Your task to perform on an android device: Go to display settings Image 0: 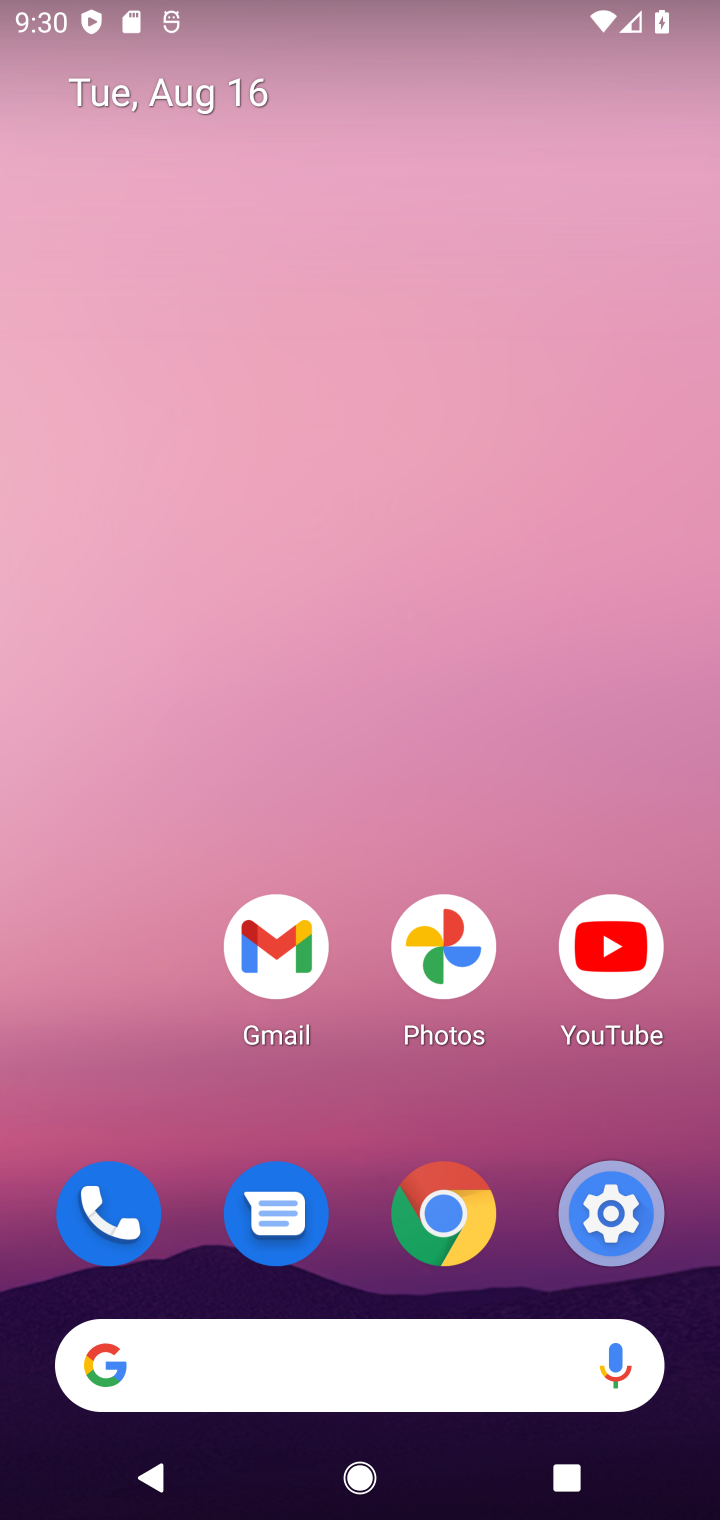
Step 0: drag from (403, 1270) to (425, 366)
Your task to perform on an android device: Go to display settings Image 1: 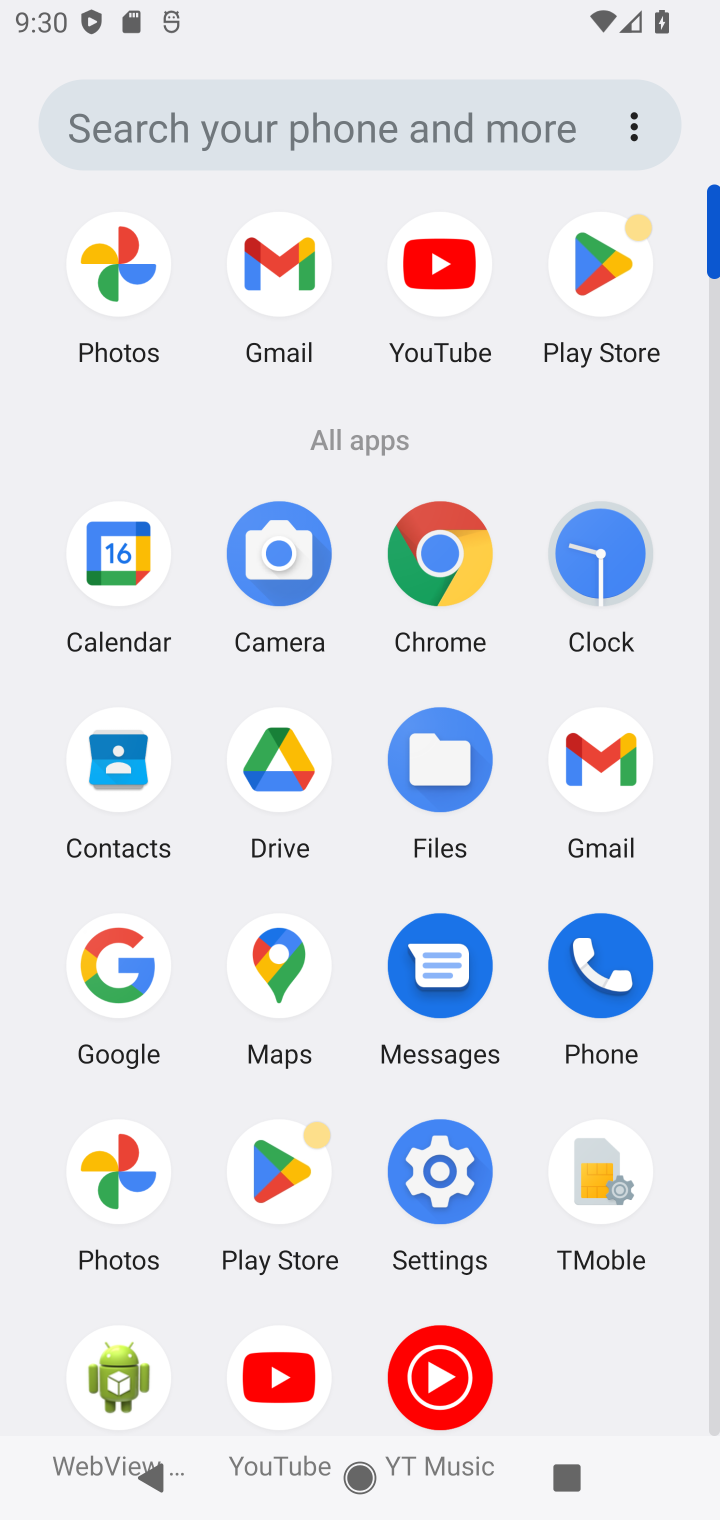
Step 1: click (453, 1162)
Your task to perform on an android device: Go to display settings Image 2: 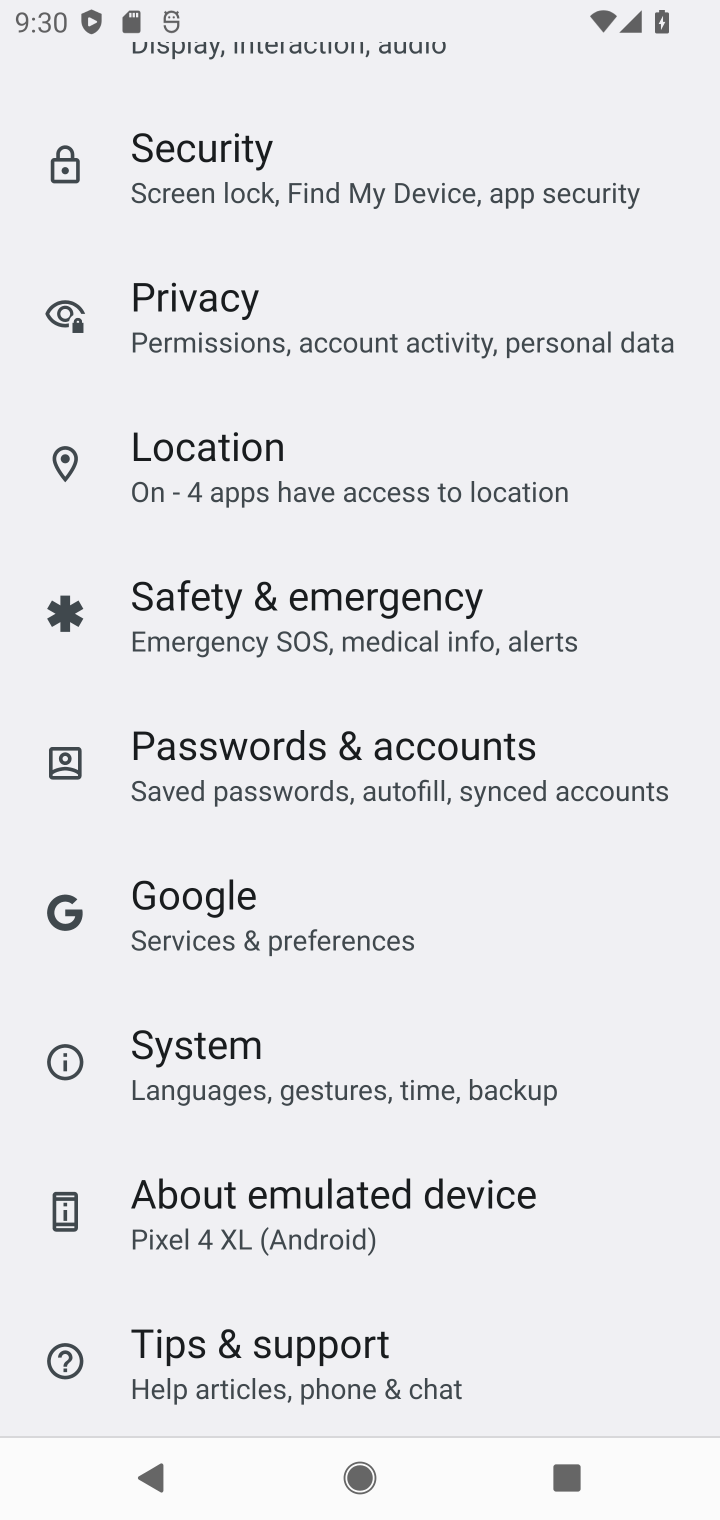
Step 2: drag from (231, 335) to (227, 1031)
Your task to perform on an android device: Go to display settings Image 3: 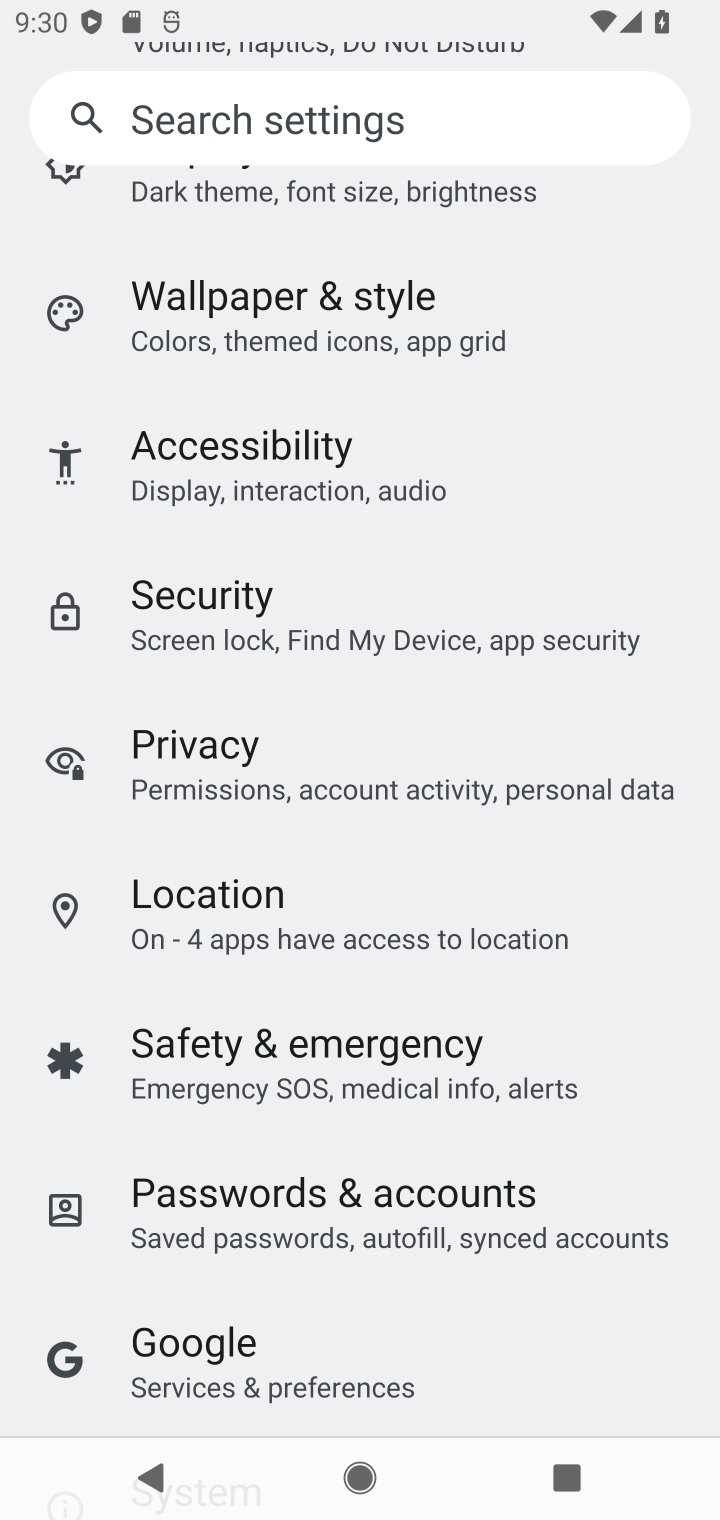
Step 3: drag from (299, 391) to (303, 1098)
Your task to perform on an android device: Go to display settings Image 4: 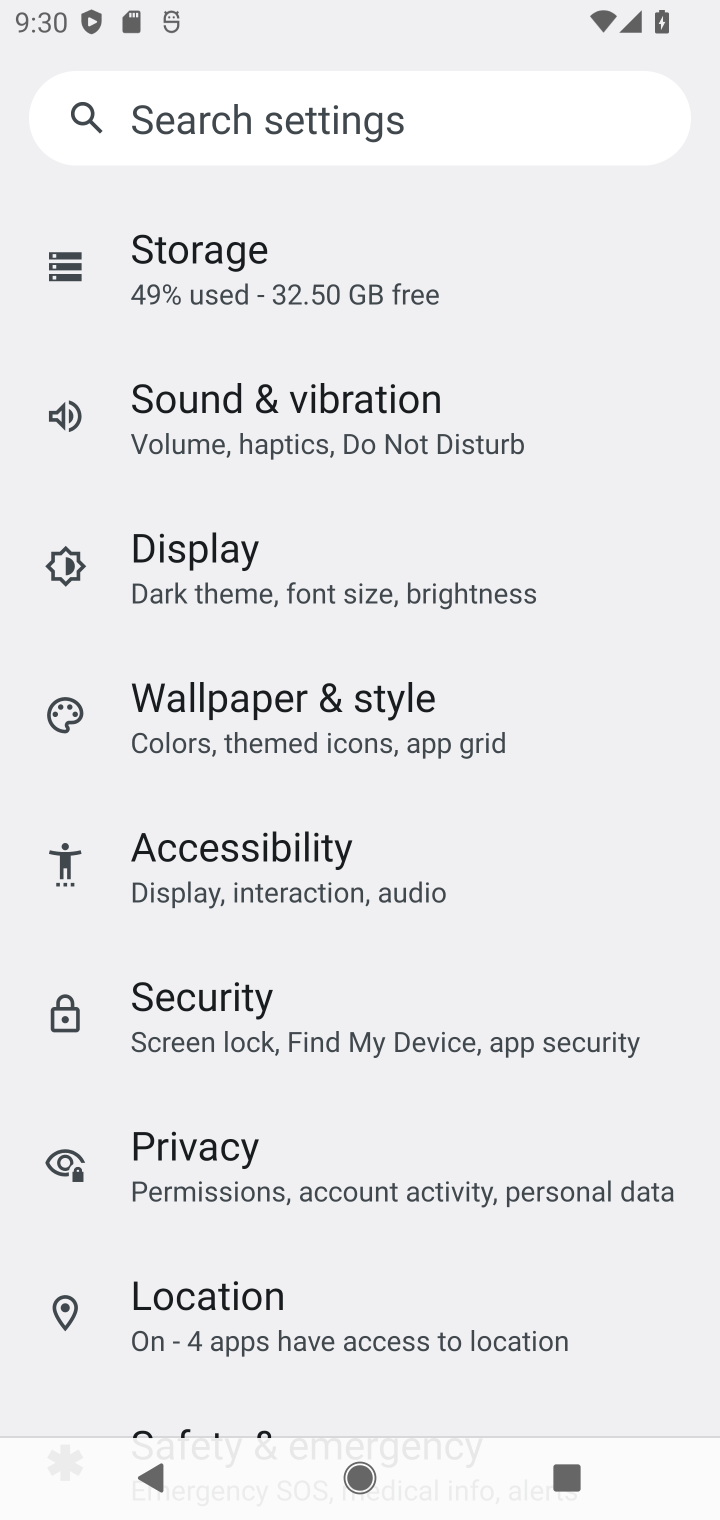
Step 4: click (251, 555)
Your task to perform on an android device: Go to display settings Image 5: 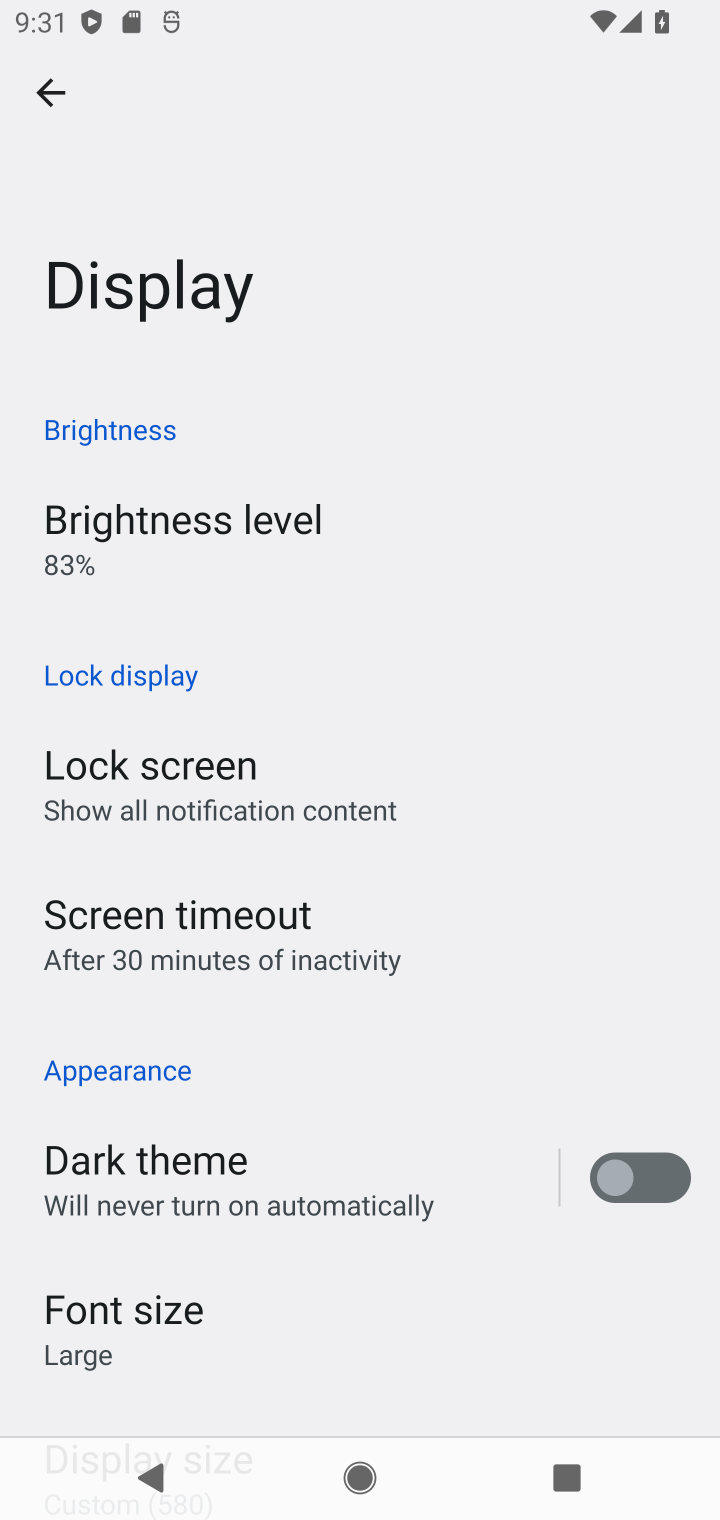
Step 5: task complete